Your task to perform on an android device: What is the news today? Image 0: 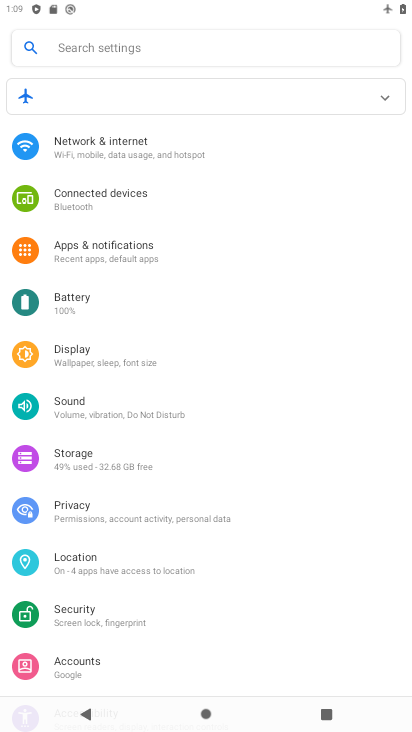
Step 0: press home button
Your task to perform on an android device: What is the news today? Image 1: 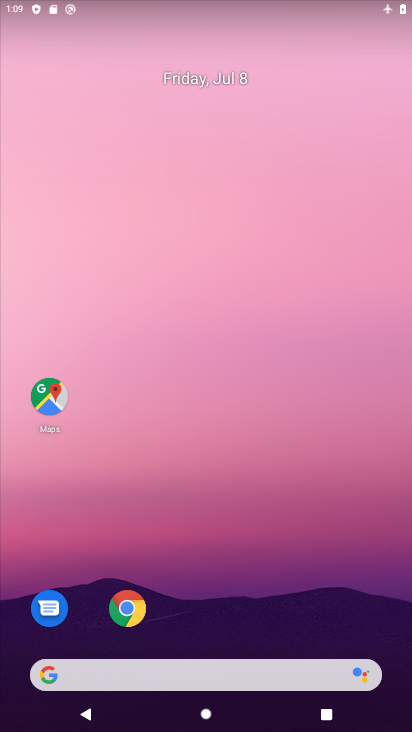
Step 1: task complete